Your task to perform on an android device: open chrome and create a bookmark for the current page Image 0: 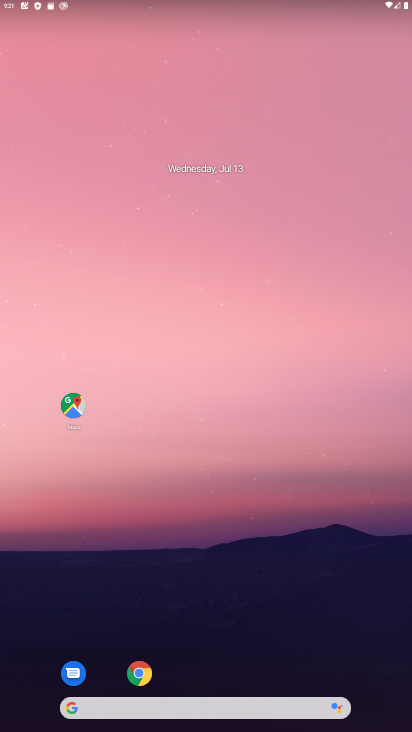
Step 0: click (128, 683)
Your task to perform on an android device: open chrome and create a bookmark for the current page Image 1: 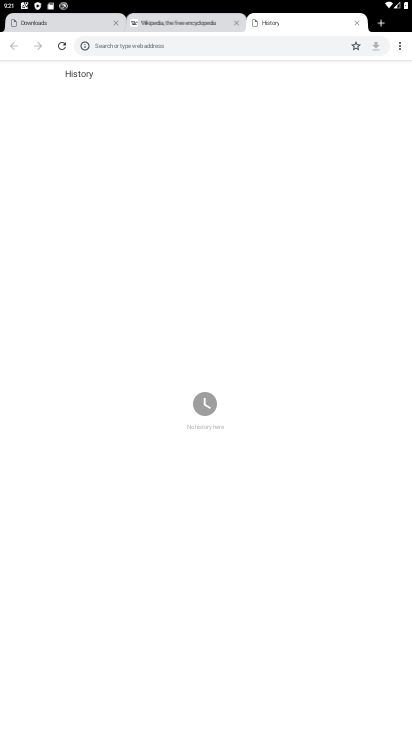
Step 1: click (357, 47)
Your task to perform on an android device: open chrome and create a bookmark for the current page Image 2: 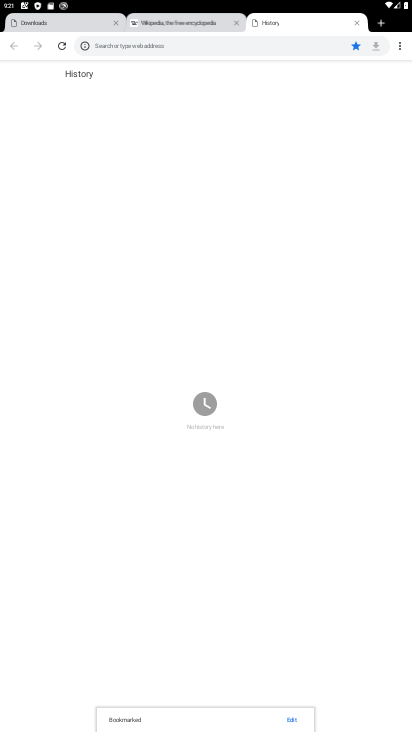
Step 2: task complete